Your task to perform on an android device: Open CNN.com Image 0: 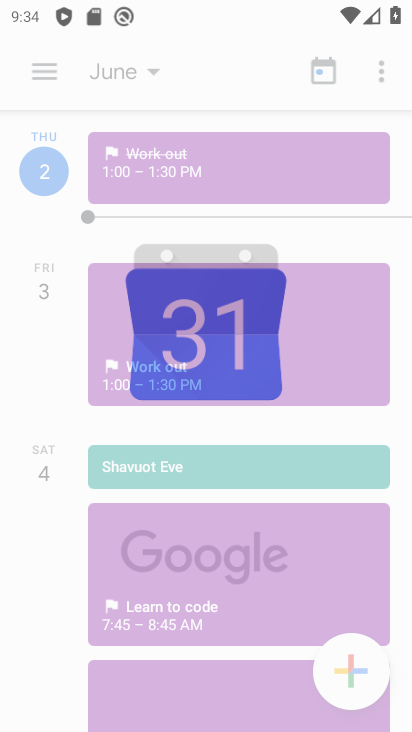
Step 0: drag from (325, 589) to (286, 81)
Your task to perform on an android device: Open CNN.com Image 1: 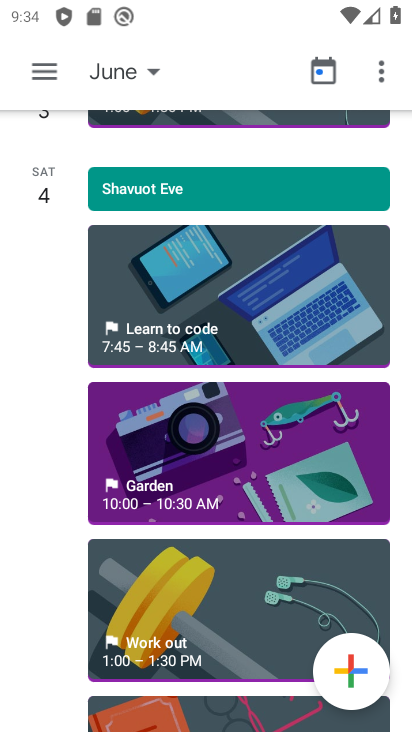
Step 1: press home button
Your task to perform on an android device: Open CNN.com Image 2: 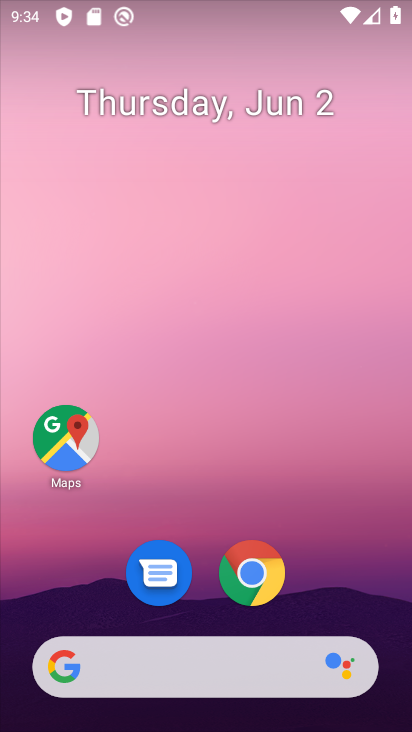
Step 2: click (232, 554)
Your task to perform on an android device: Open CNN.com Image 3: 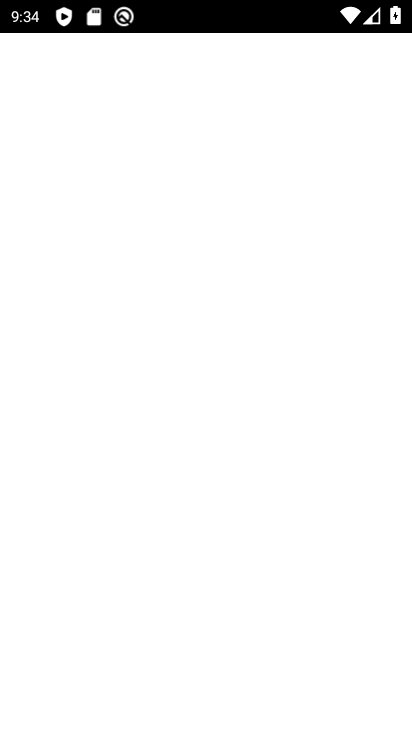
Step 3: click (232, 554)
Your task to perform on an android device: Open CNN.com Image 4: 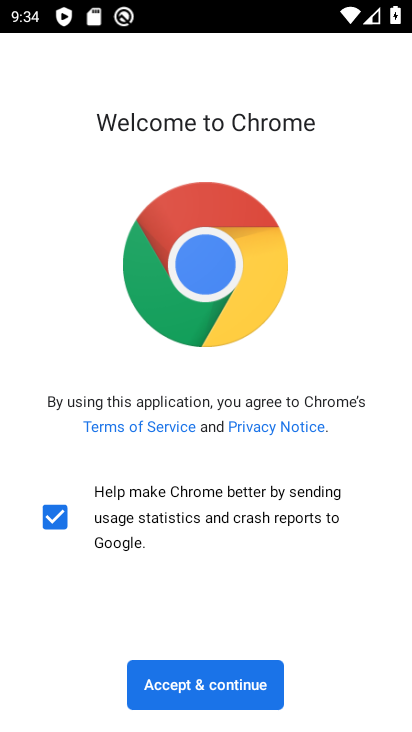
Step 4: click (210, 684)
Your task to perform on an android device: Open CNN.com Image 5: 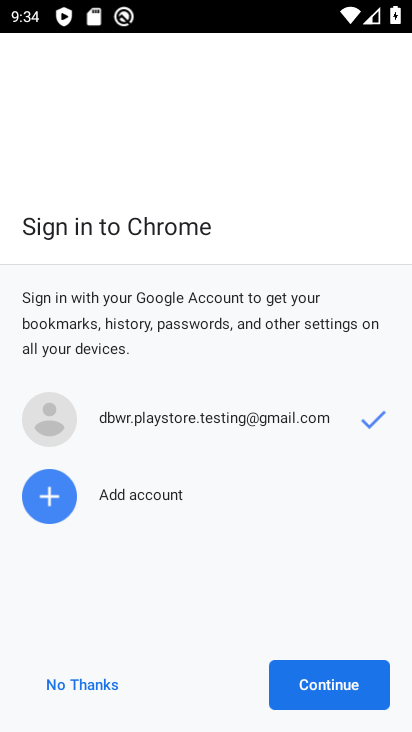
Step 5: click (293, 691)
Your task to perform on an android device: Open CNN.com Image 6: 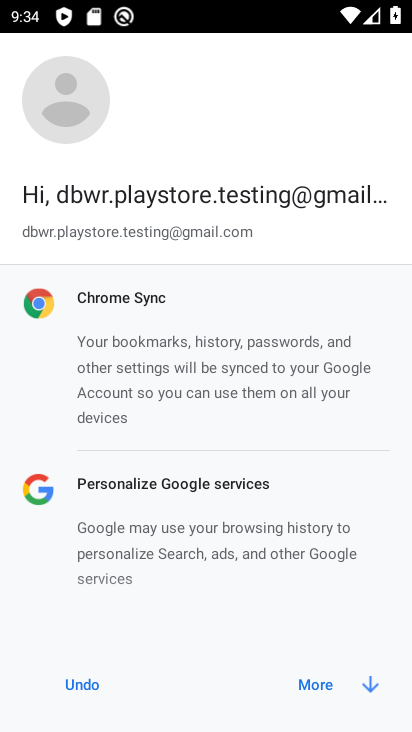
Step 6: click (305, 688)
Your task to perform on an android device: Open CNN.com Image 7: 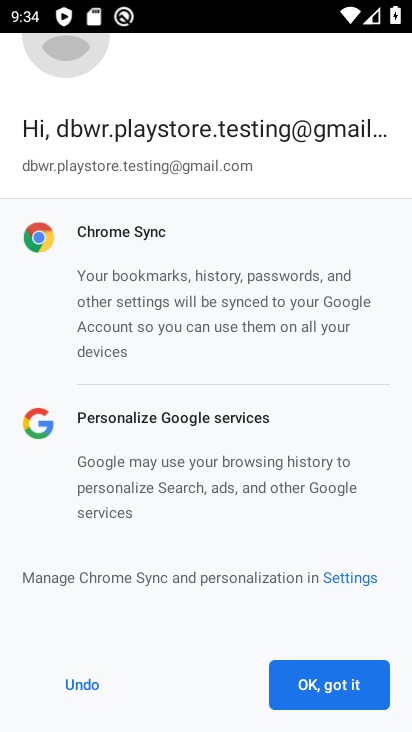
Step 7: click (305, 688)
Your task to perform on an android device: Open CNN.com Image 8: 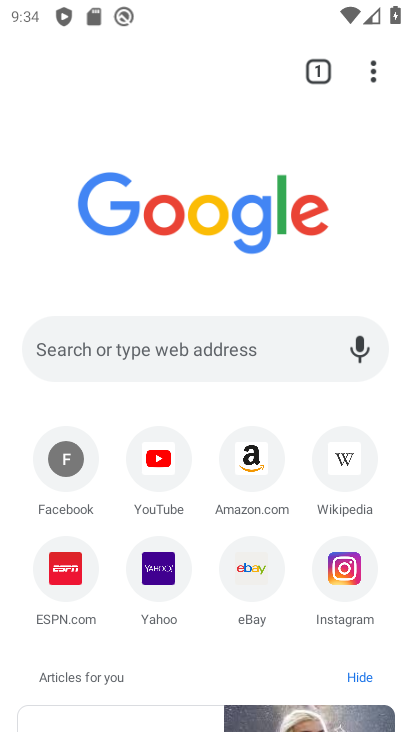
Step 8: click (215, 334)
Your task to perform on an android device: Open CNN.com Image 9: 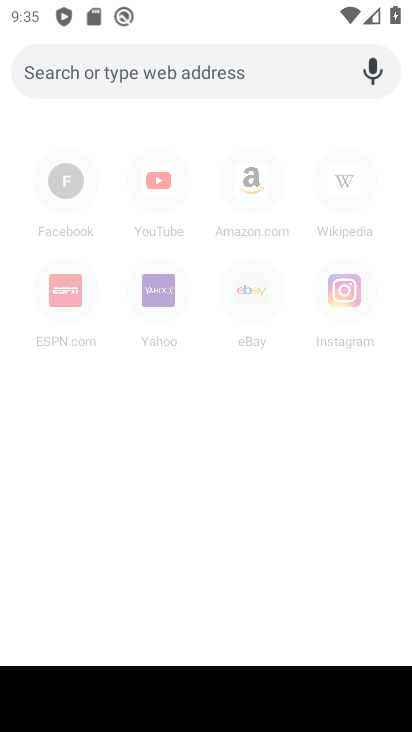
Step 9: type "cnn.com"
Your task to perform on an android device: Open CNN.com Image 10: 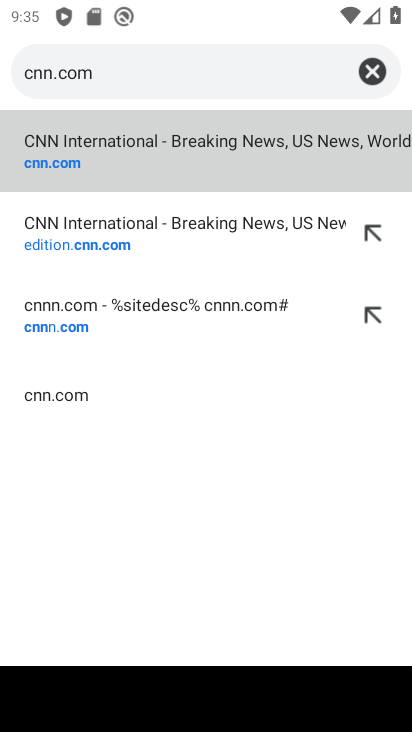
Step 10: click (294, 146)
Your task to perform on an android device: Open CNN.com Image 11: 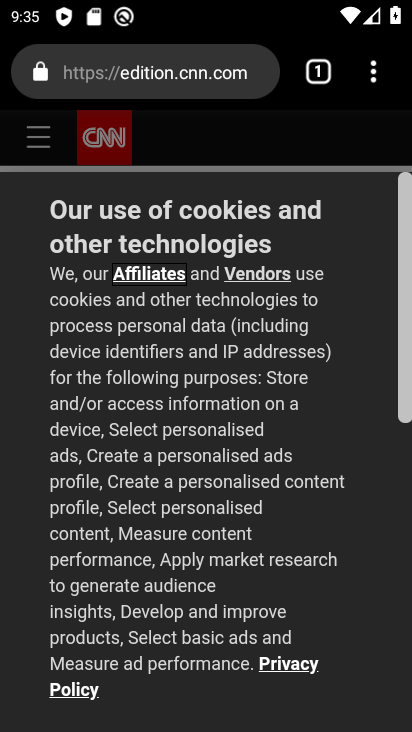
Step 11: task complete